Your task to perform on an android device: turn off improve location accuracy Image 0: 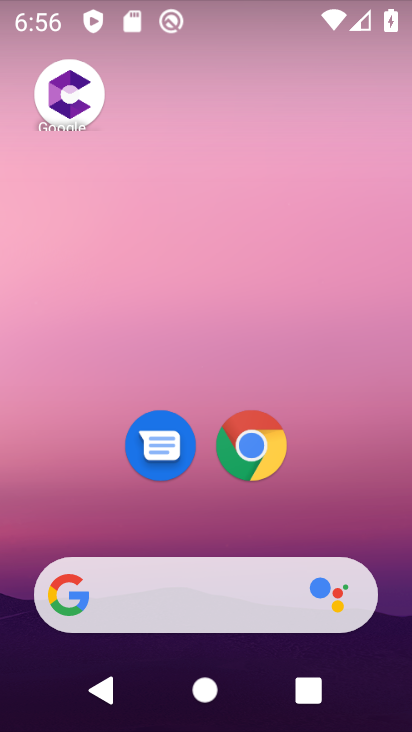
Step 0: drag from (320, 491) to (207, 181)
Your task to perform on an android device: turn off improve location accuracy Image 1: 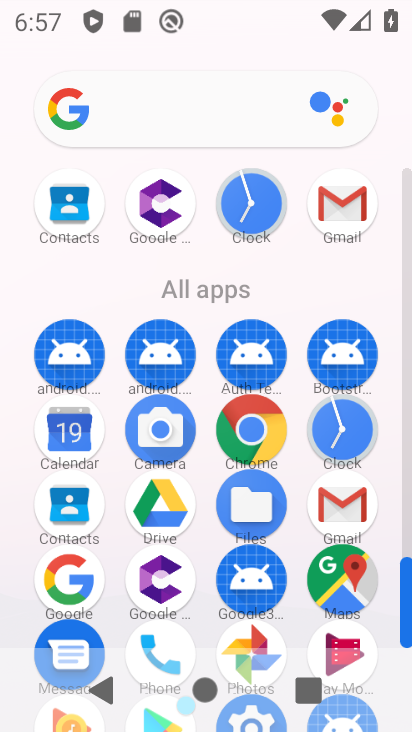
Step 1: drag from (218, 593) to (152, 141)
Your task to perform on an android device: turn off improve location accuracy Image 2: 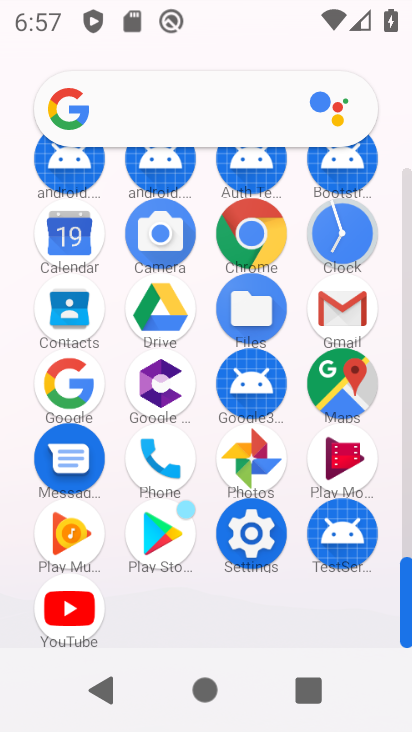
Step 2: click (249, 525)
Your task to perform on an android device: turn off improve location accuracy Image 3: 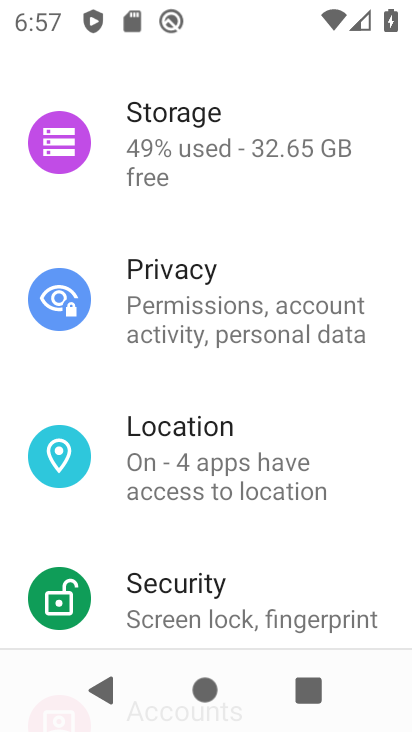
Step 3: click (172, 424)
Your task to perform on an android device: turn off improve location accuracy Image 4: 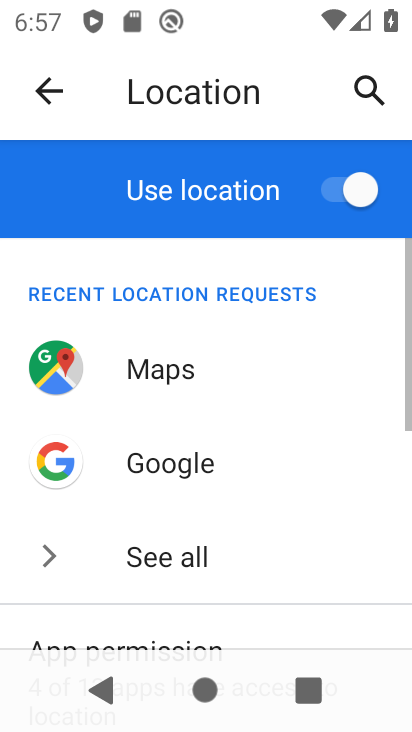
Step 4: drag from (236, 449) to (160, 60)
Your task to perform on an android device: turn off improve location accuracy Image 5: 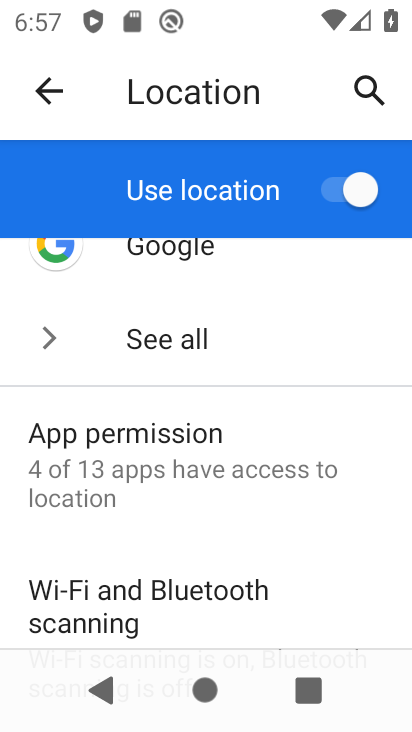
Step 5: drag from (230, 521) to (182, 200)
Your task to perform on an android device: turn off improve location accuracy Image 6: 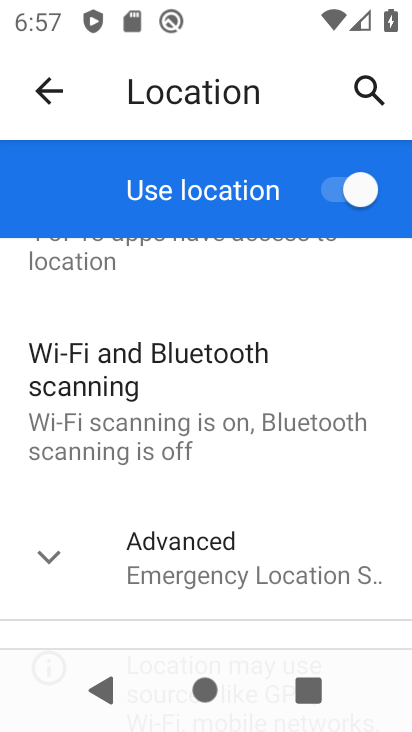
Step 6: click (59, 554)
Your task to perform on an android device: turn off improve location accuracy Image 7: 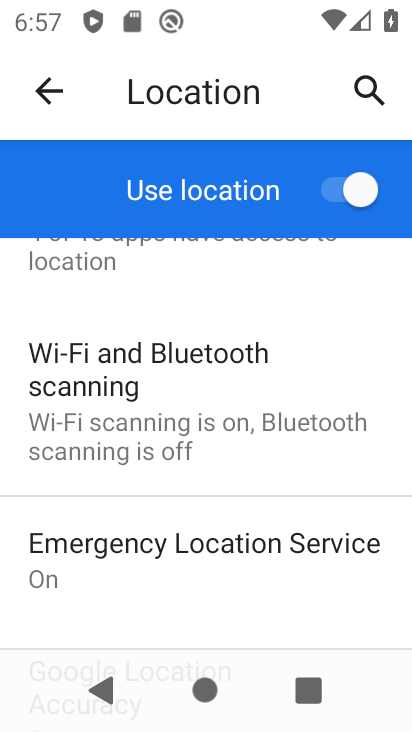
Step 7: drag from (154, 499) to (87, 220)
Your task to perform on an android device: turn off improve location accuracy Image 8: 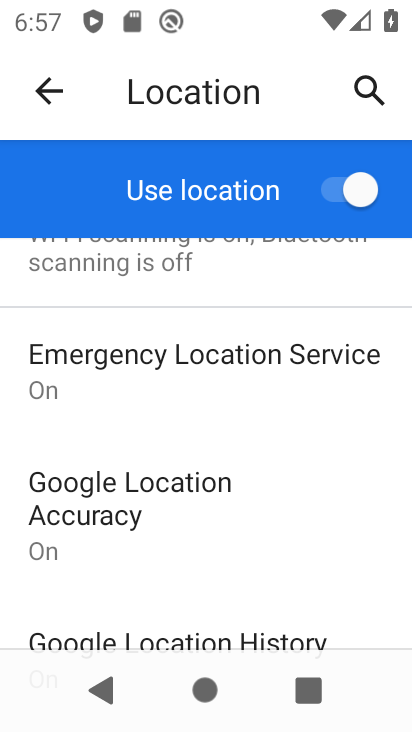
Step 8: click (115, 503)
Your task to perform on an android device: turn off improve location accuracy Image 9: 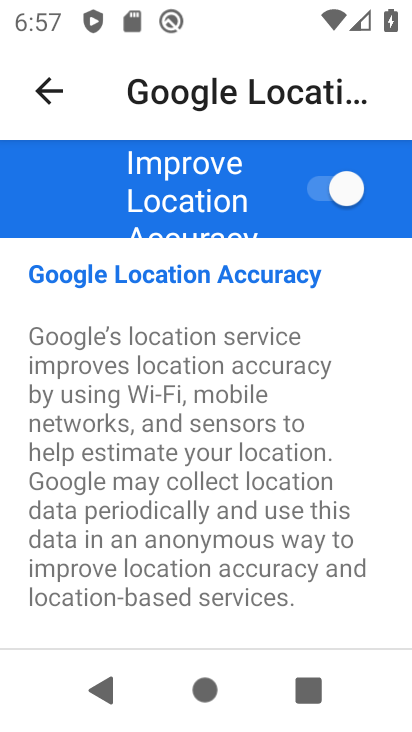
Step 9: click (350, 175)
Your task to perform on an android device: turn off improve location accuracy Image 10: 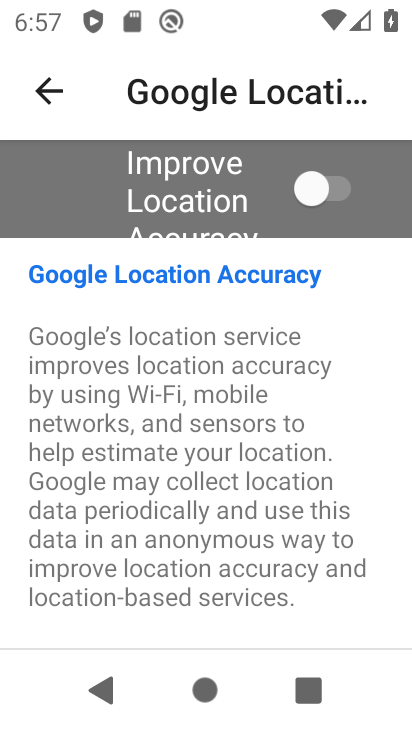
Step 10: task complete